Your task to perform on an android device: turn notification dots off Image 0: 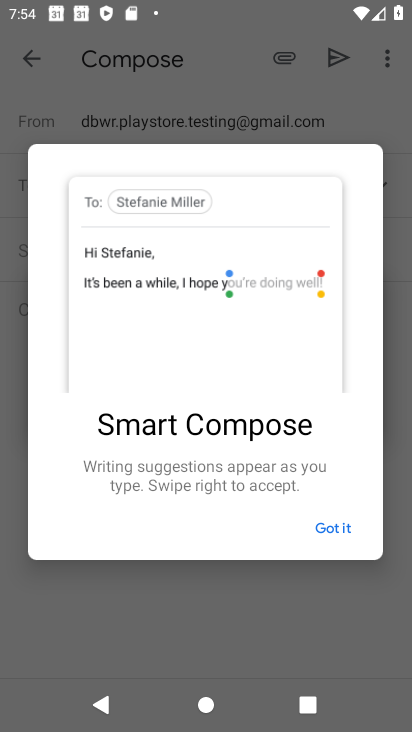
Step 0: press home button
Your task to perform on an android device: turn notification dots off Image 1: 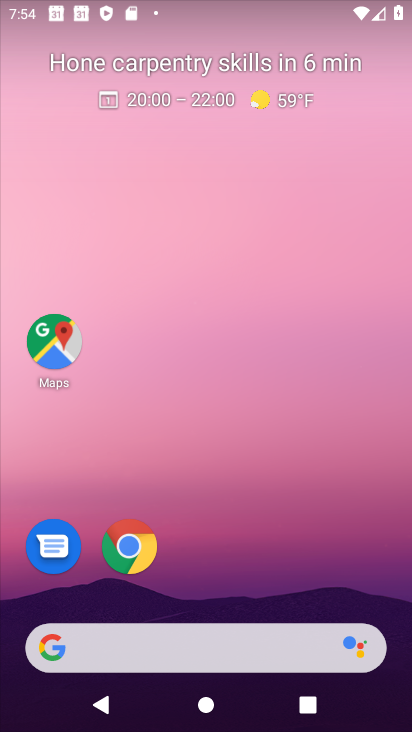
Step 1: drag from (356, 10) to (280, 457)
Your task to perform on an android device: turn notification dots off Image 2: 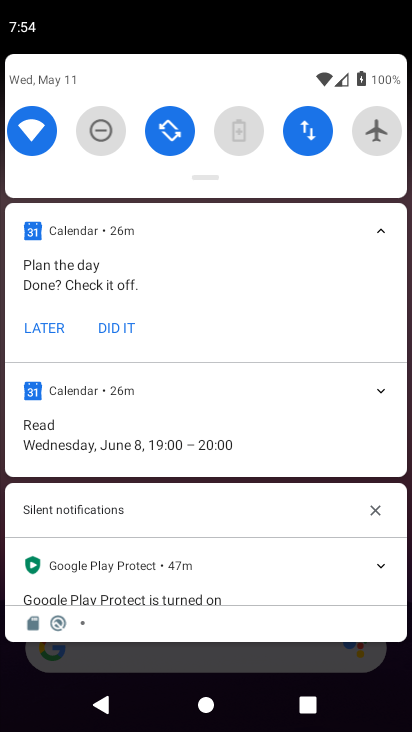
Step 2: drag from (233, 175) to (177, 537)
Your task to perform on an android device: turn notification dots off Image 3: 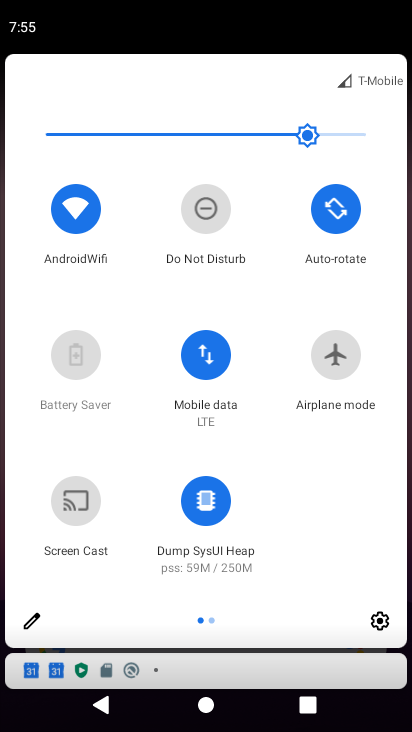
Step 3: click (383, 623)
Your task to perform on an android device: turn notification dots off Image 4: 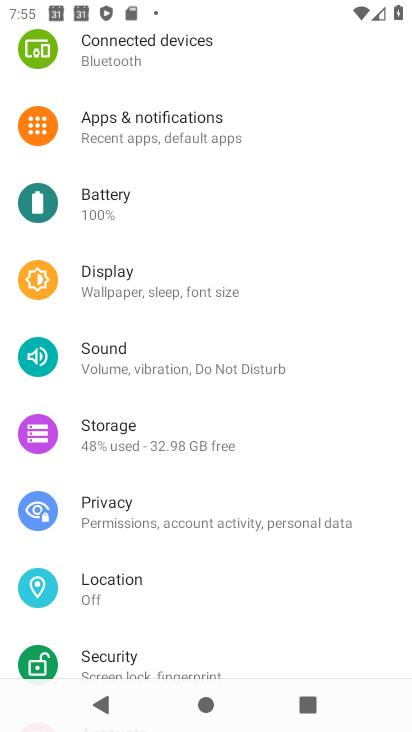
Step 4: click (164, 131)
Your task to perform on an android device: turn notification dots off Image 5: 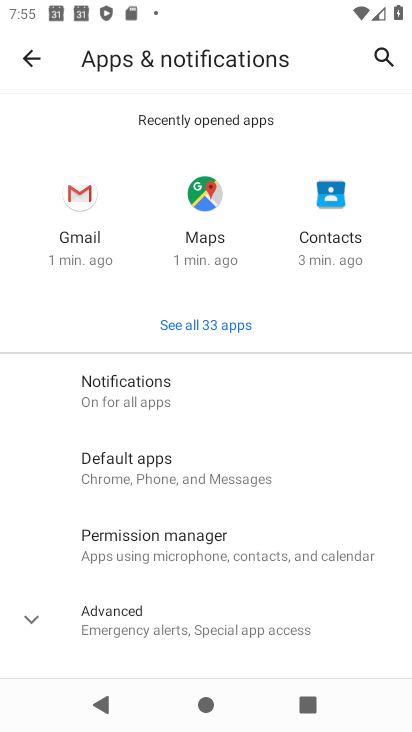
Step 5: click (165, 380)
Your task to perform on an android device: turn notification dots off Image 6: 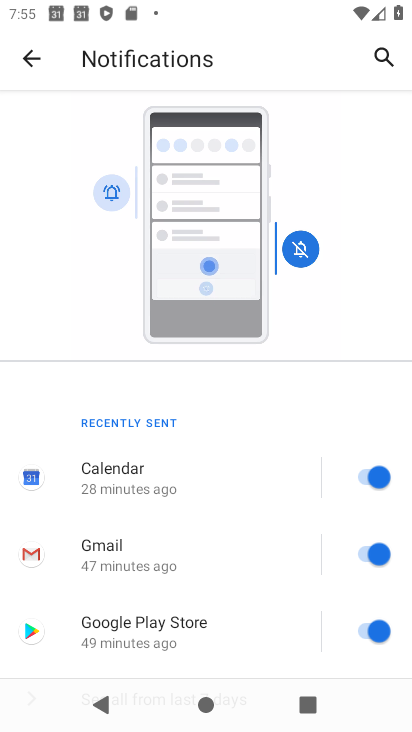
Step 6: drag from (244, 606) to (232, 288)
Your task to perform on an android device: turn notification dots off Image 7: 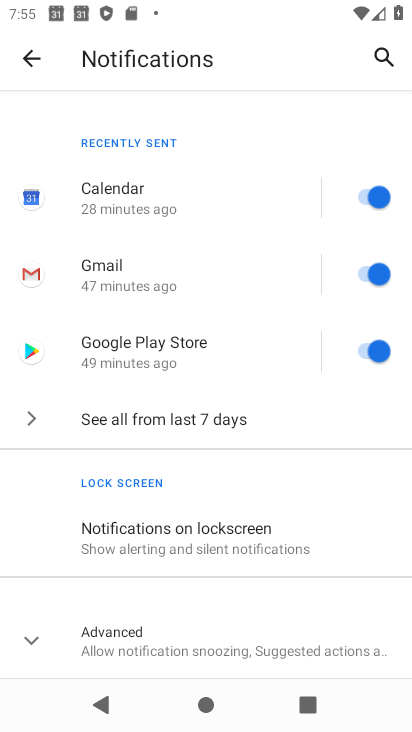
Step 7: click (160, 625)
Your task to perform on an android device: turn notification dots off Image 8: 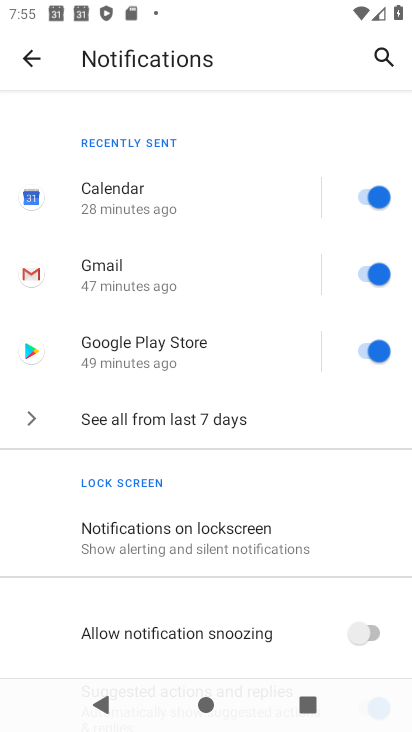
Step 8: drag from (272, 601) to (281, 254)
Your task to perform on an android device: turn notification dots off Image 9: 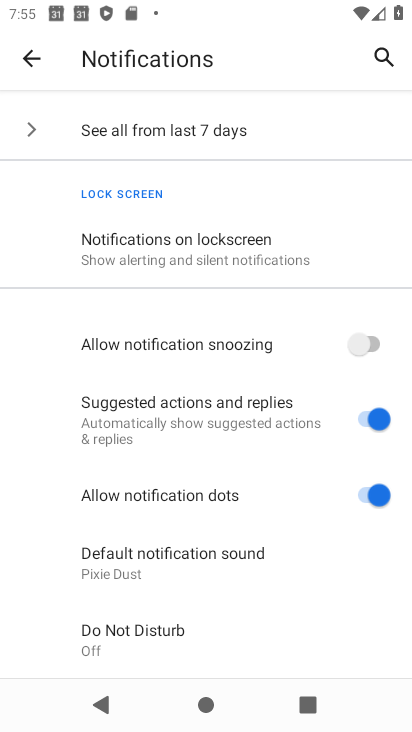
Step 9: click (368, 503)
Your task to perform on an android device: turn notification dots off Image 10: 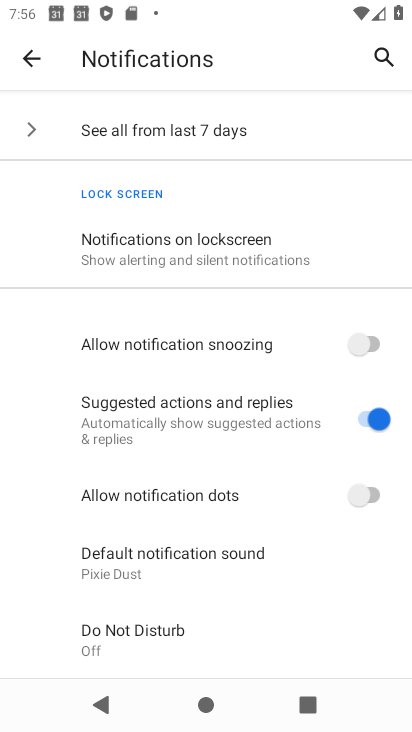
Step 10: task complete